Your task to perform on an android device: Open battery settings Image 0: 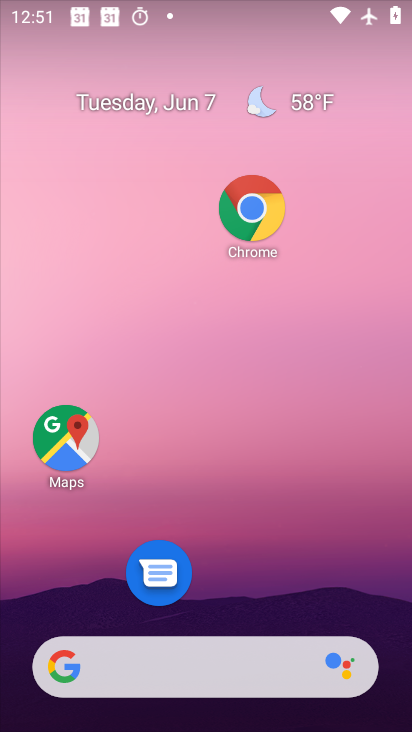
Step 0: drag from (227, 625) to (188, 161)
Your task to perform on an android device: Open battery settings Image 1: 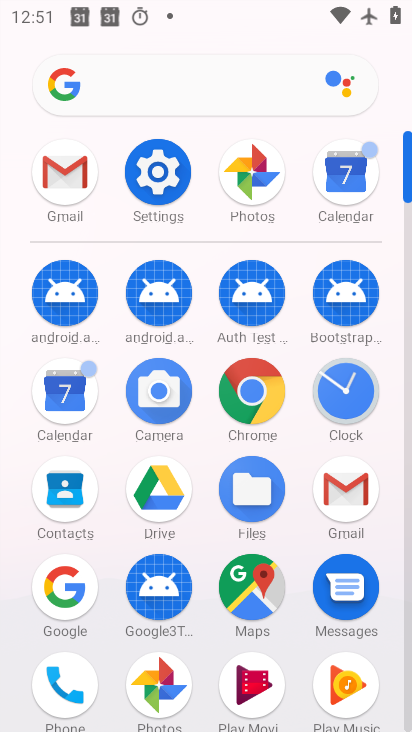
Step 1: click (182, 158)
Your task to perform on an android device: Open battery settings Image 2: 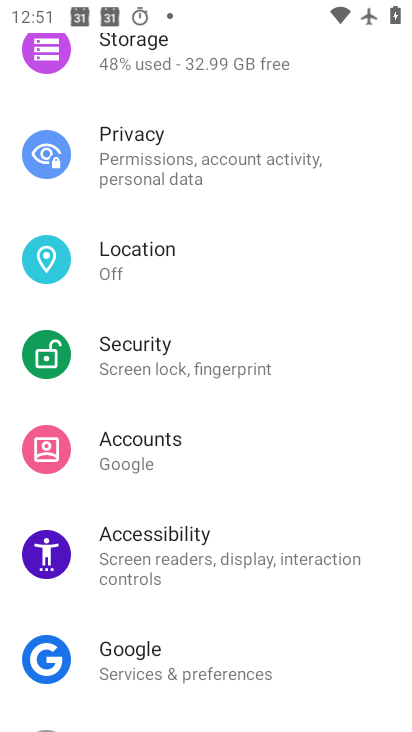
Step 2: drag from (184, 159) to (189, 588)
Your task to perform on an android device: Open battery settings Image 3: 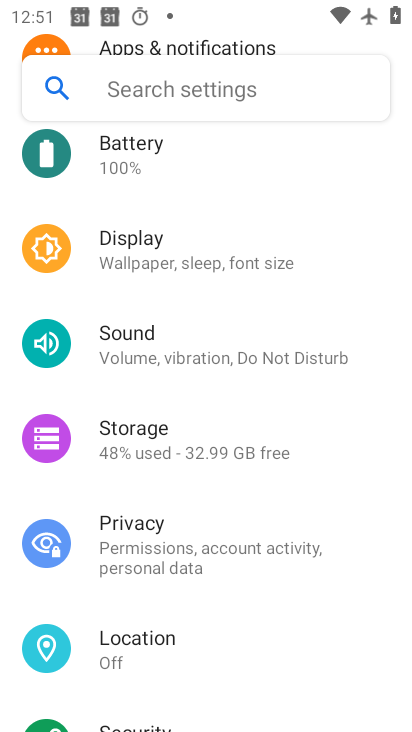
Step 3: click (167, 173)
Your task to perform on an android device: Open battery settings Image 4: 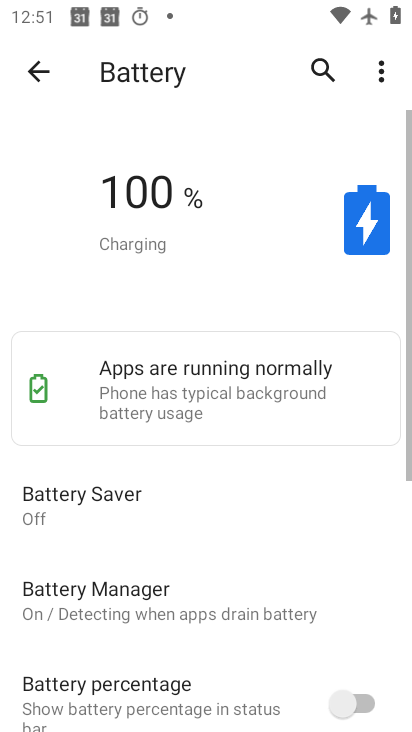
Step 4: task complete